Your task to perform on an android device: open app "Skype" (install if not already installed) and enter user name: "rumor@gmail.com" and password: "kinsman" Image 0: 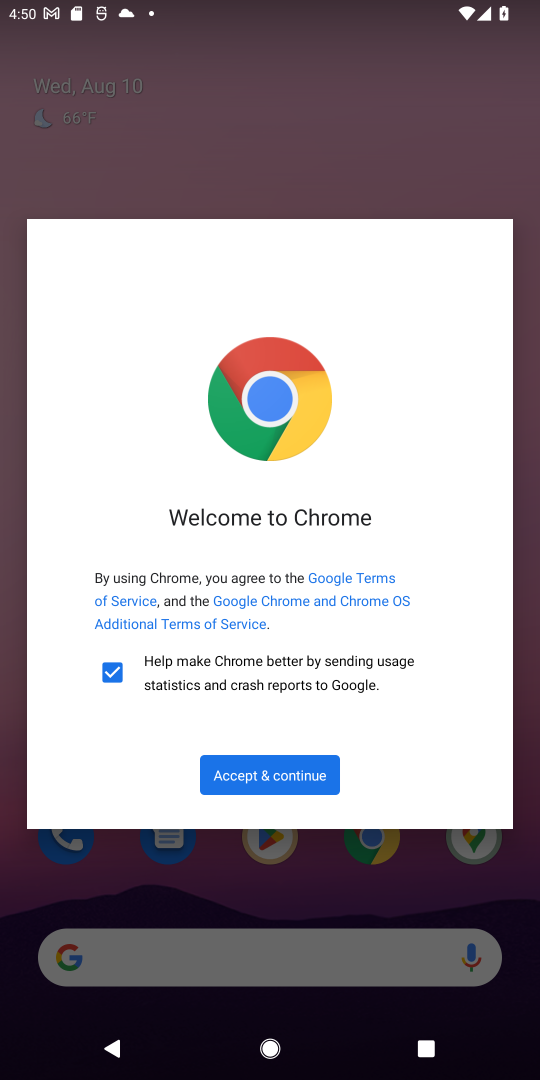
Step 0: press home button
Your task to perform on an android device: open app "Skype" (install if not already installed) and enter user name: "rumor@gmail.com" and password: "kinsman" Image 1: 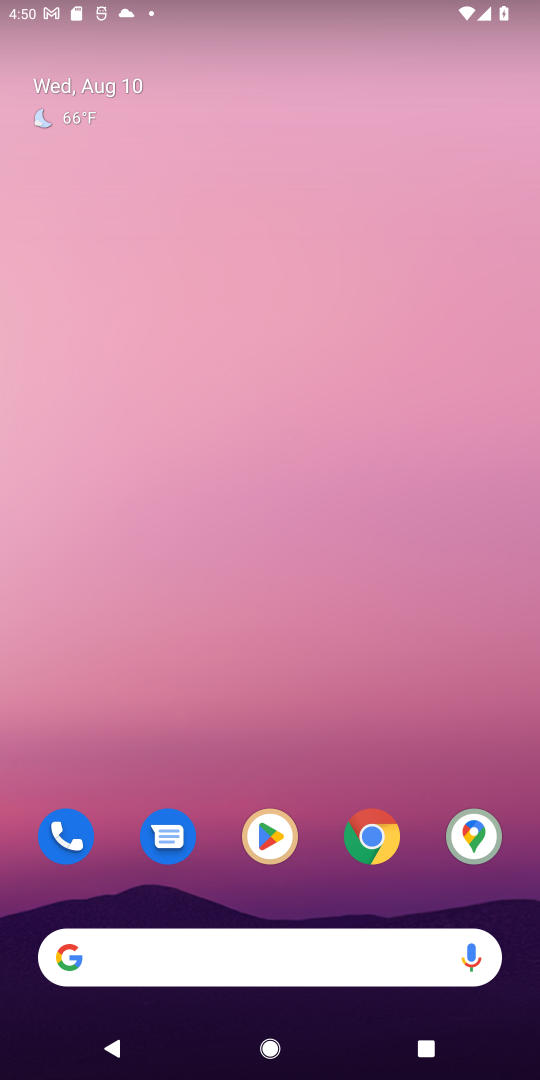
Step 1: drag from (258, 887) to (255, 138)
Your task to perform on an android device: open app "Skype" (install if not already installed) and enter user name: "rumor@gmail.com" and password: "kinsman" Image 2: 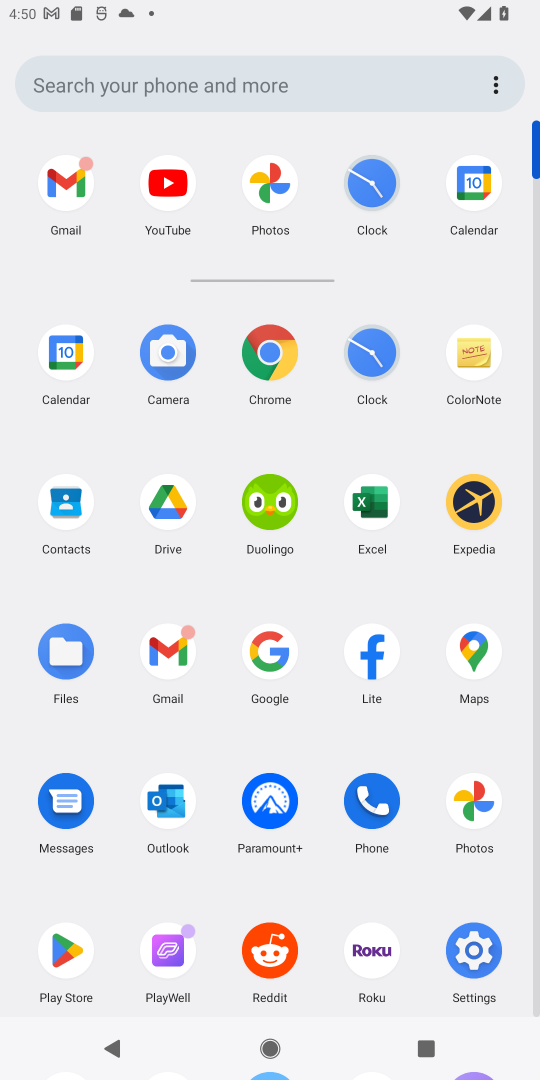
Step 2: click (66, 947)
Your task to perform on an android device: open app "Skype" (install if not already installed) and enter user name: "rumor@gmail.com" and password: "kinsman" Image 3: 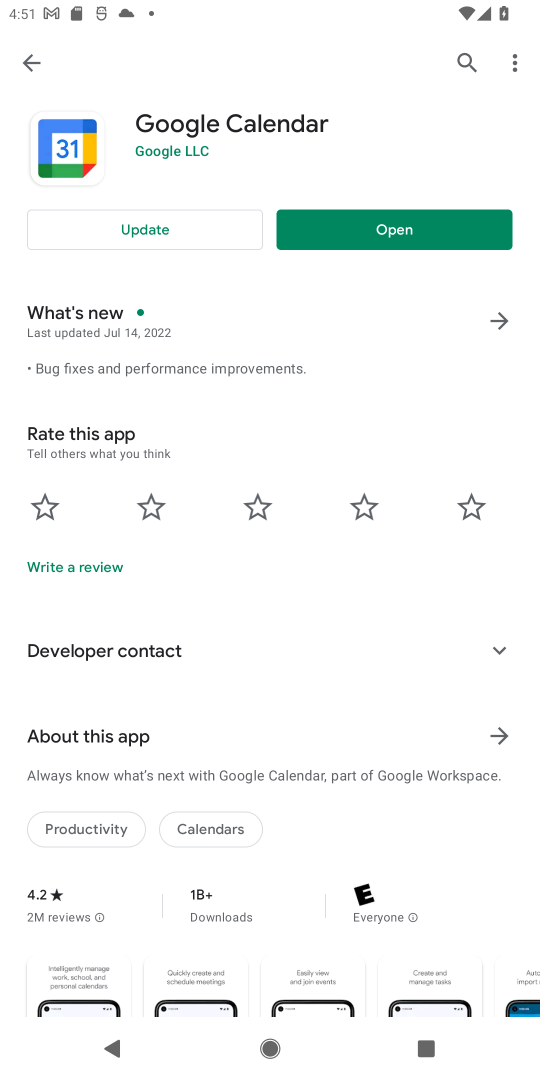
Step 3: press back button
Your task to perform on an android device: open app "Skype" (install if not already installed) and enter user name: "rumor@gmail.com" and password: "kinsman" Image 4: 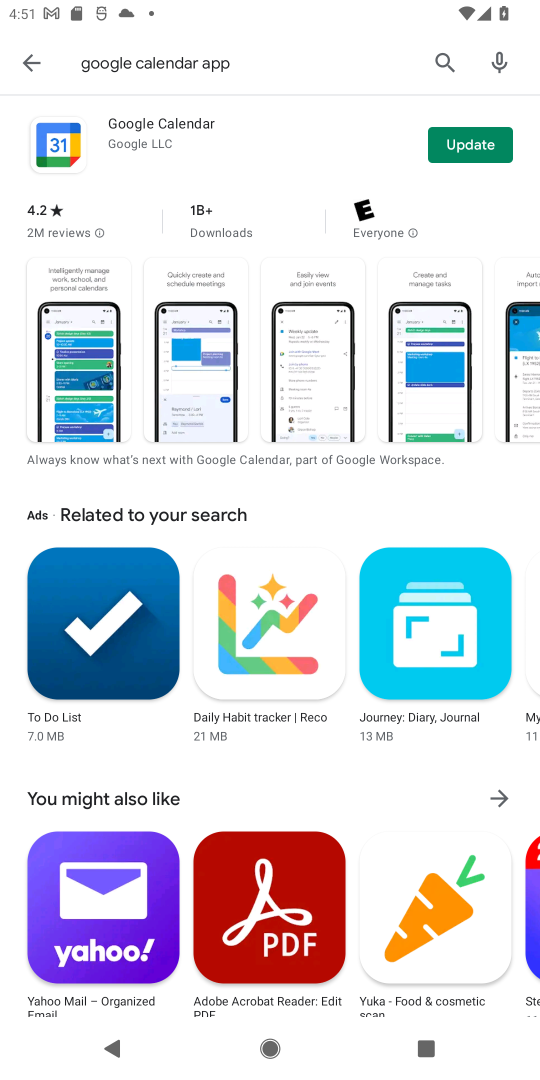
Step 4: click (34, 76)
Your task to perform on an android device: open app "Skype" (install if not already installed) and enter user name: "rumor@gmail.com" and password: "kinsman" Image 5: 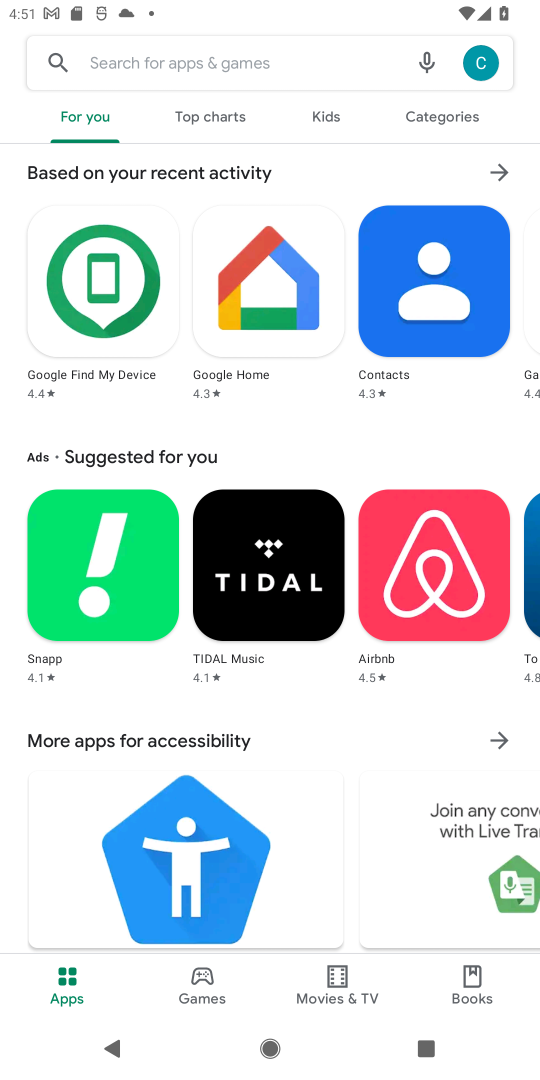
Step 5: click (234, 49)
Your task to perform on an android device: open app "Skype" (install if not already installed) and enter user name: "rumor@gmail.com" and password: "kinsman" Image 6: 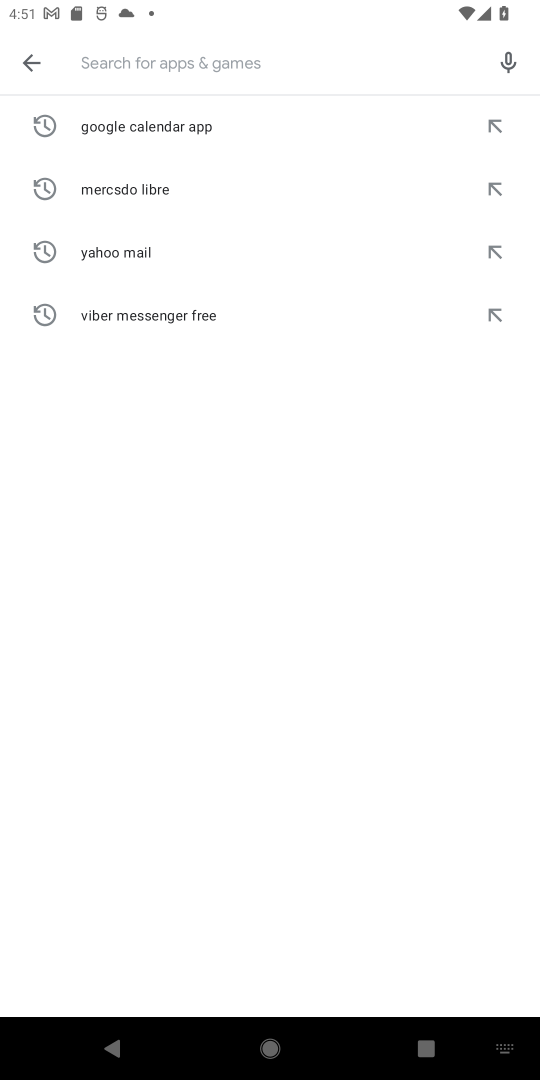
Step 6: type "skype "
Your task to perform on an android device: open app "Skype" (install if not already installed) and enter user name: "rumor@gmail.com" and password: "kinsman" Image 7: 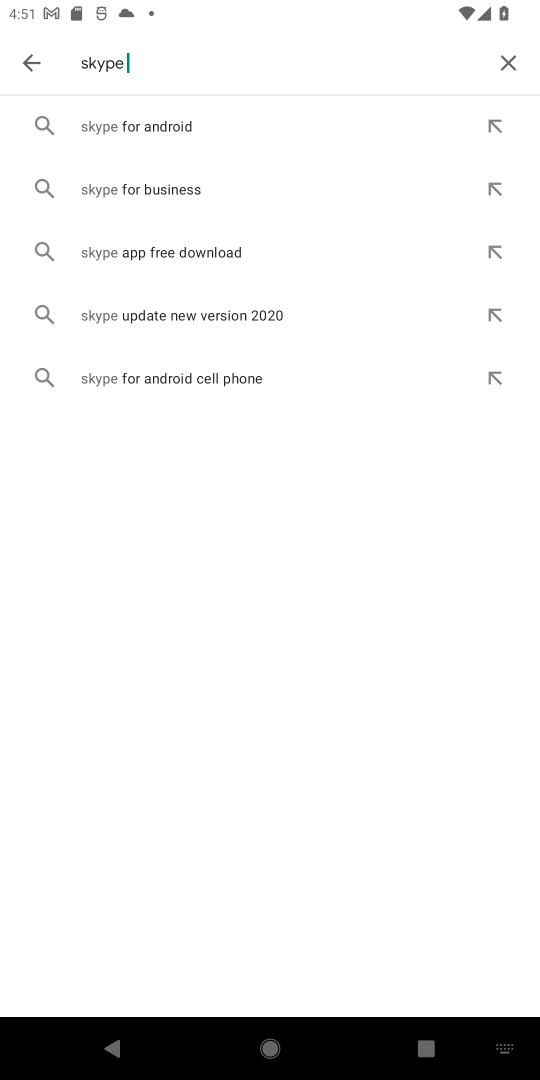
Step 7: click (167, 138)
Your task to perform on an android device: open app "Skype" (install if not already installed) and enter user name: "rumor@gmail.com" and password: "kinsman" Image 8: 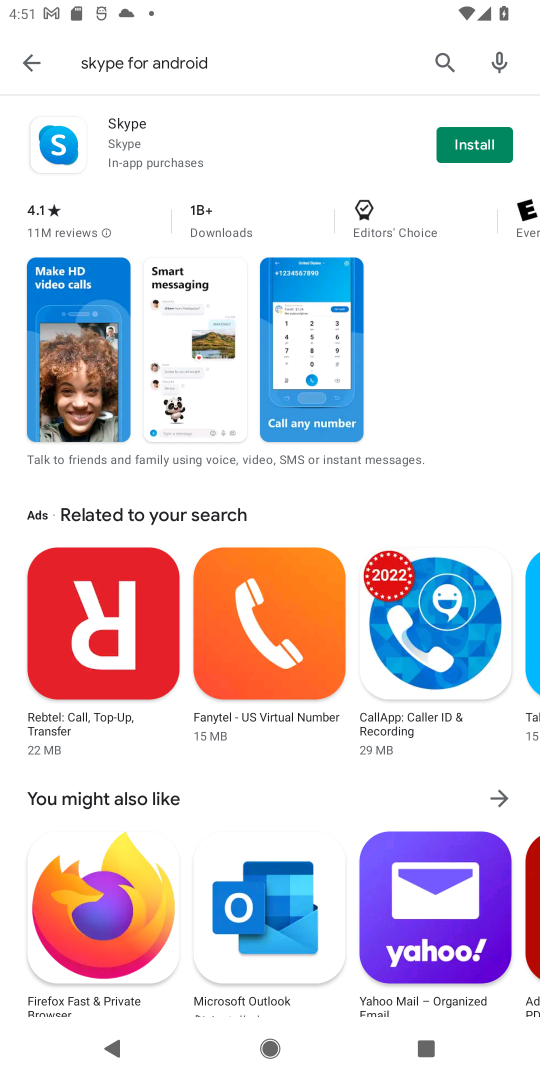
Step 8: click (470, 136)
Your task to perform on an android device: open app "Skype" (install if not already installed) and enter user name: "rumor@gmail.com" and password: "kinsman" Image 9: 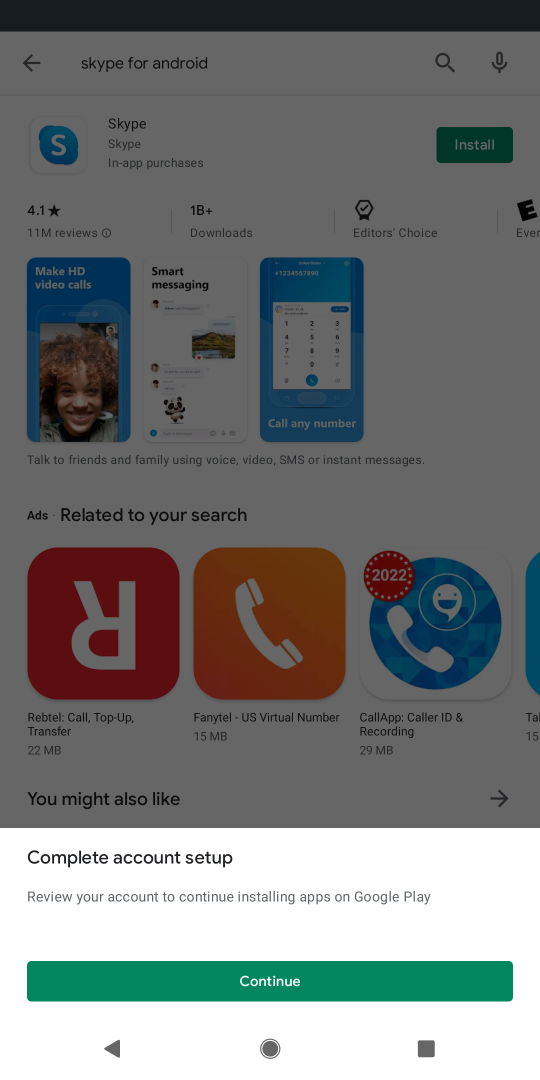
Step 9: task complete